Your task to perform on an android device: turn off wifi Image 0: 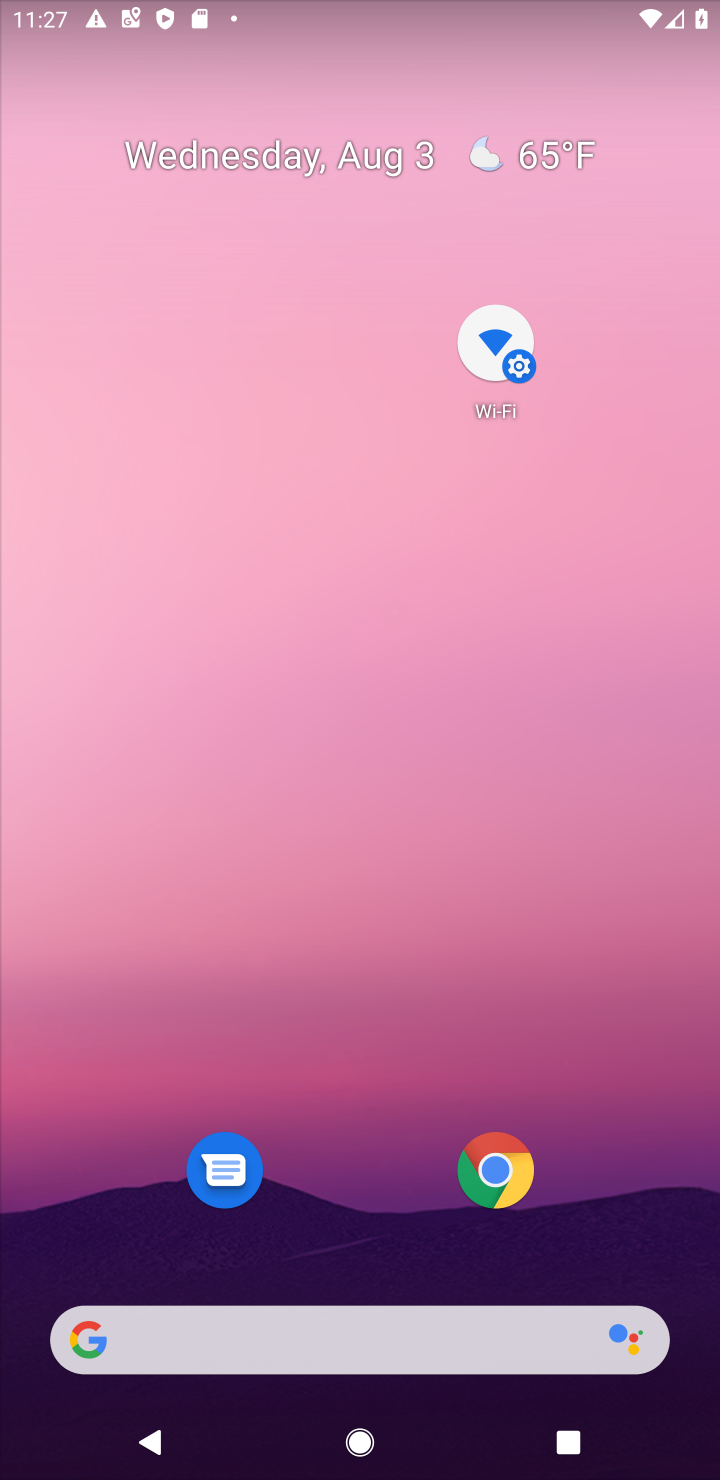
Step 0: drag from (395, 860) to (431, 478)
Your task to perform on an android device: turn off wifi Image 1: 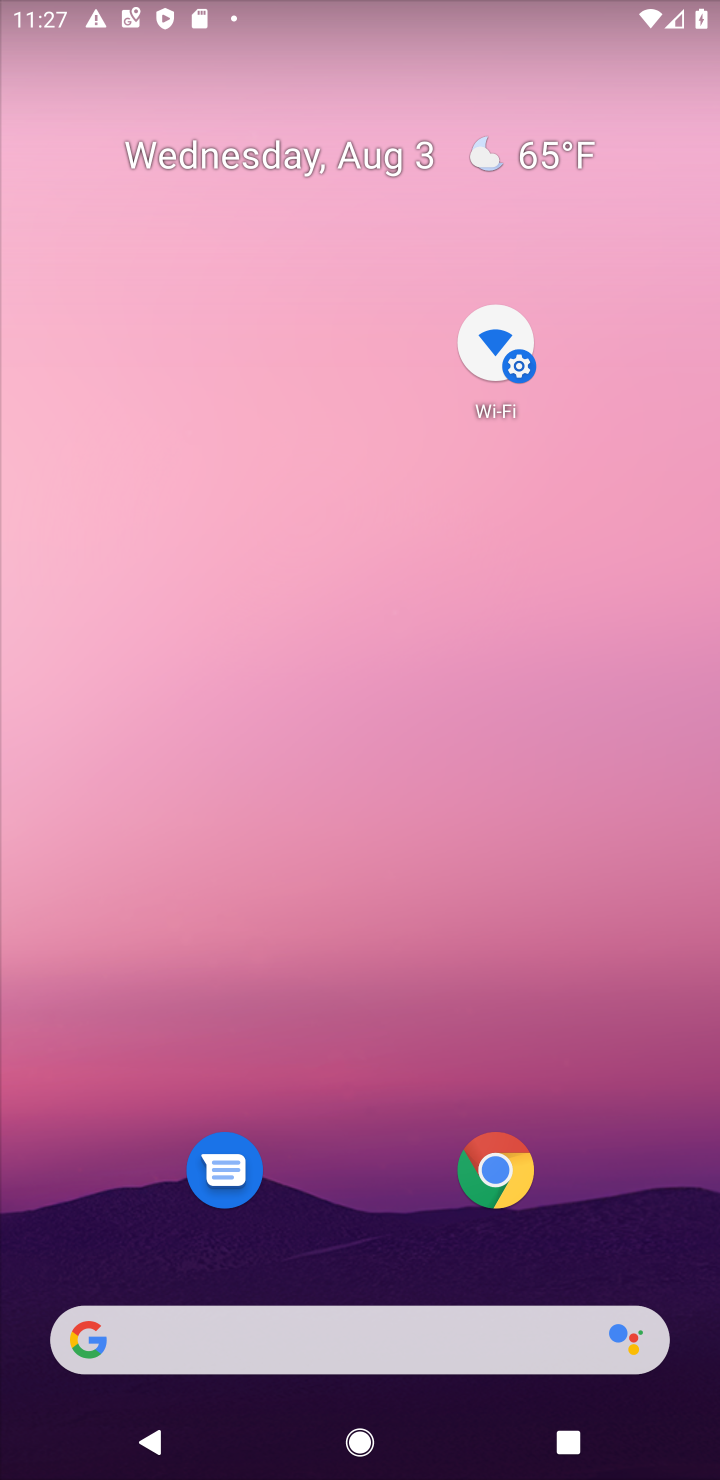
Step 1: drag from (358, 1179) to (416, 671)
Your task to perform on an android device: turn off wifi Image 2: 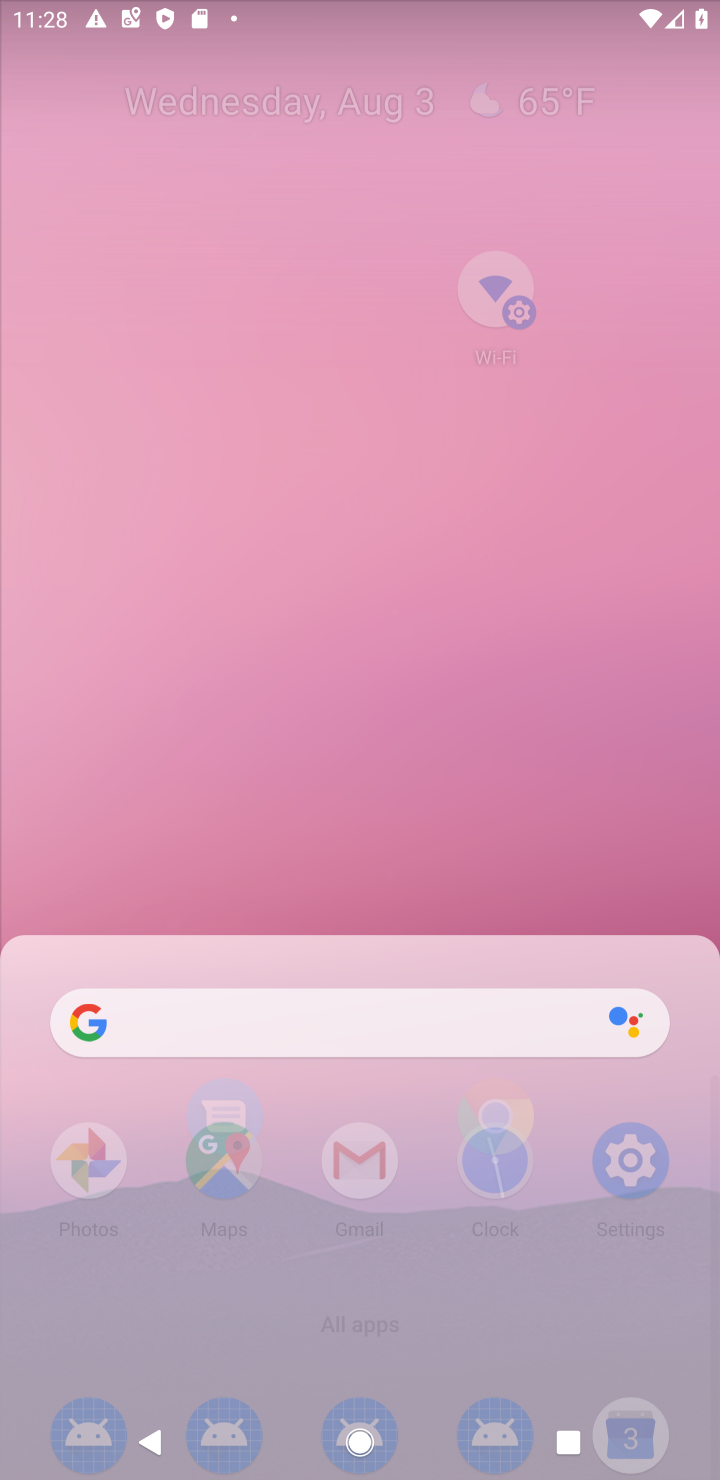
Step 2: drag from (365, 967) to (412, 553)
Your task to perform on an android device: turn off wifi Image 3: 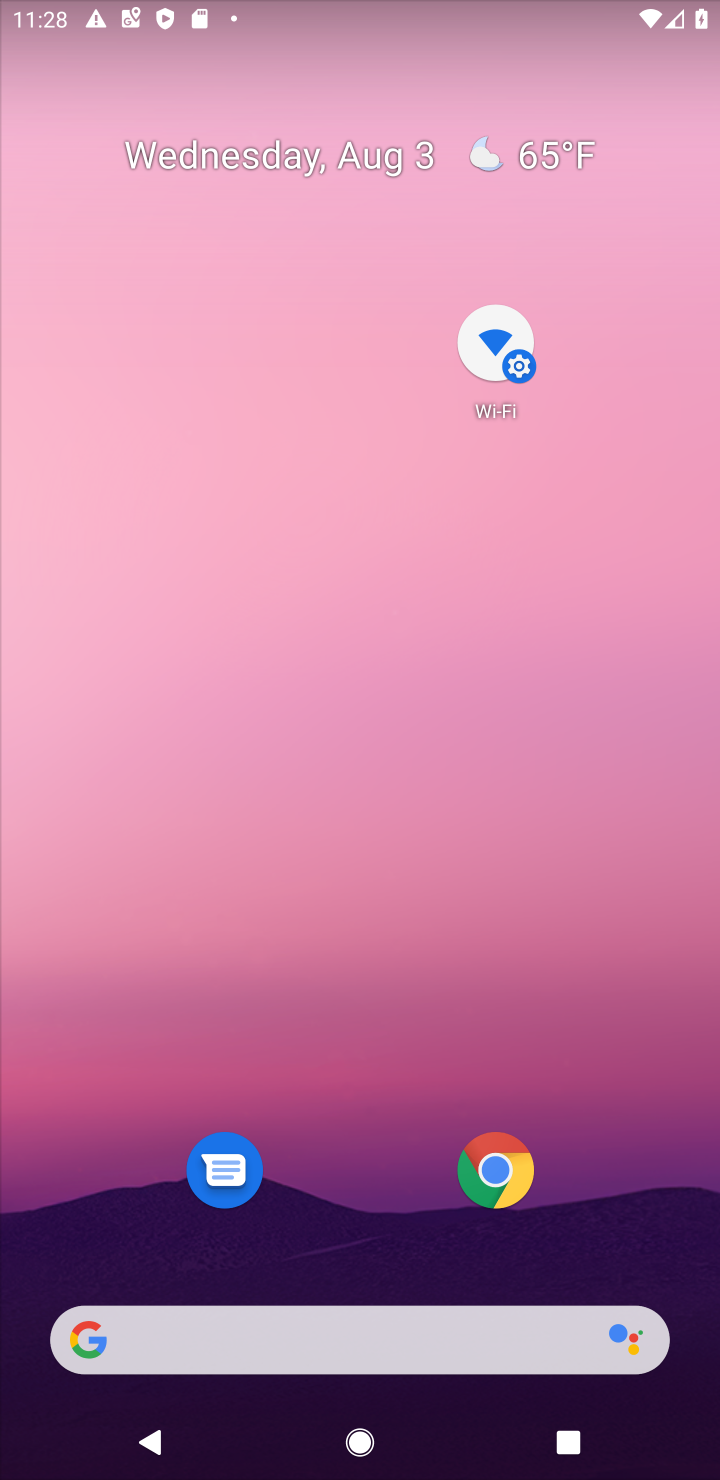
Step 3: drag from (375, 831) to (40, 6)
Your task to perform on an android device: turn off wifi Image 4: 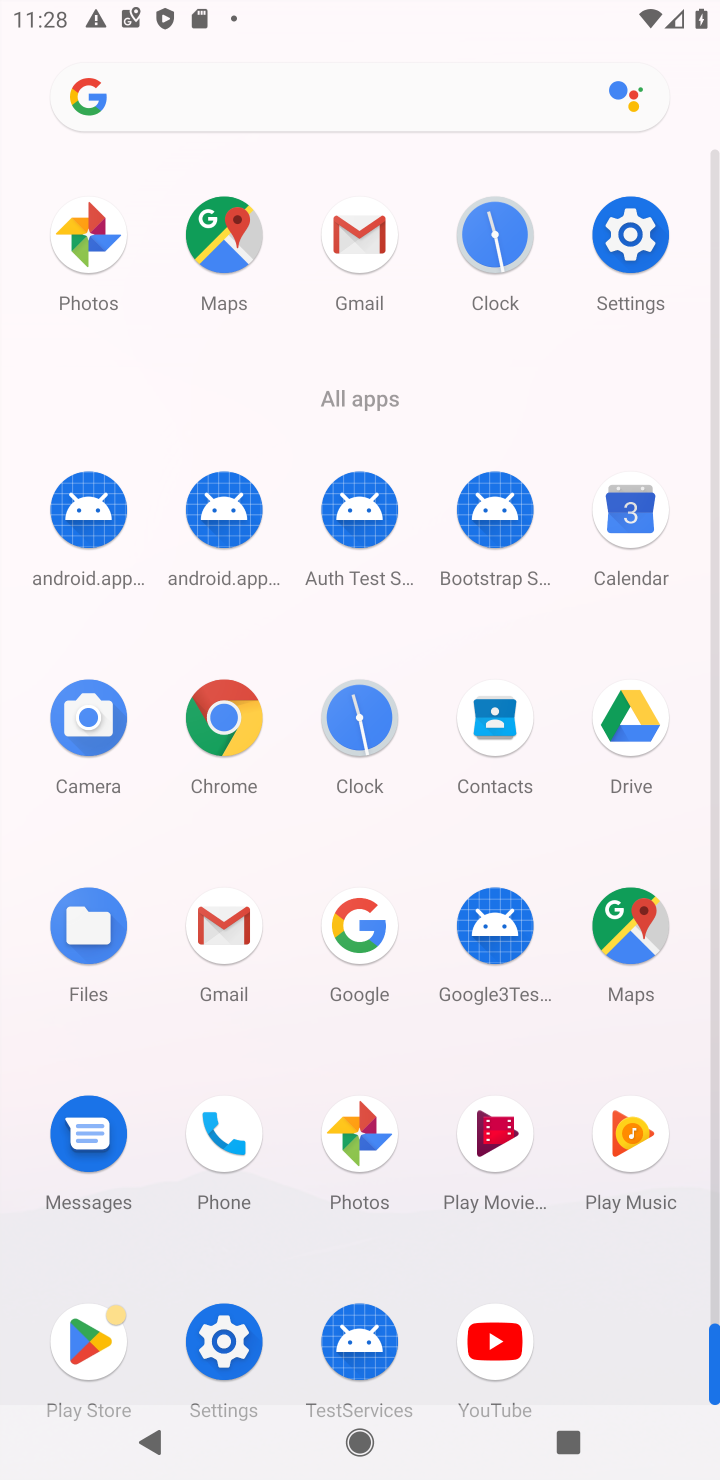
Step 4: click (616, 253)
Your task to perform on an android device: turn off wifi Image 5: 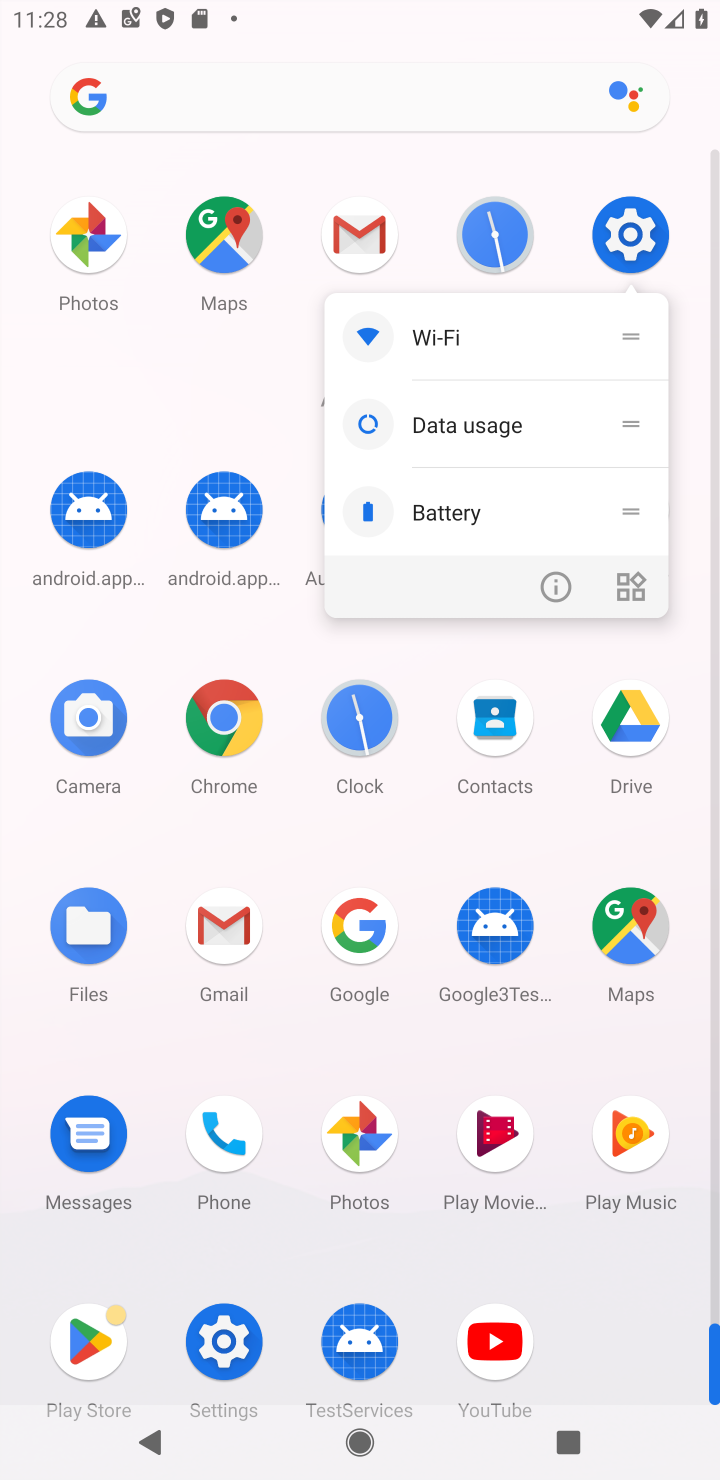
Step 5: click (543, 593)
Your task to perform on an android device: turn off wifi Image 6: 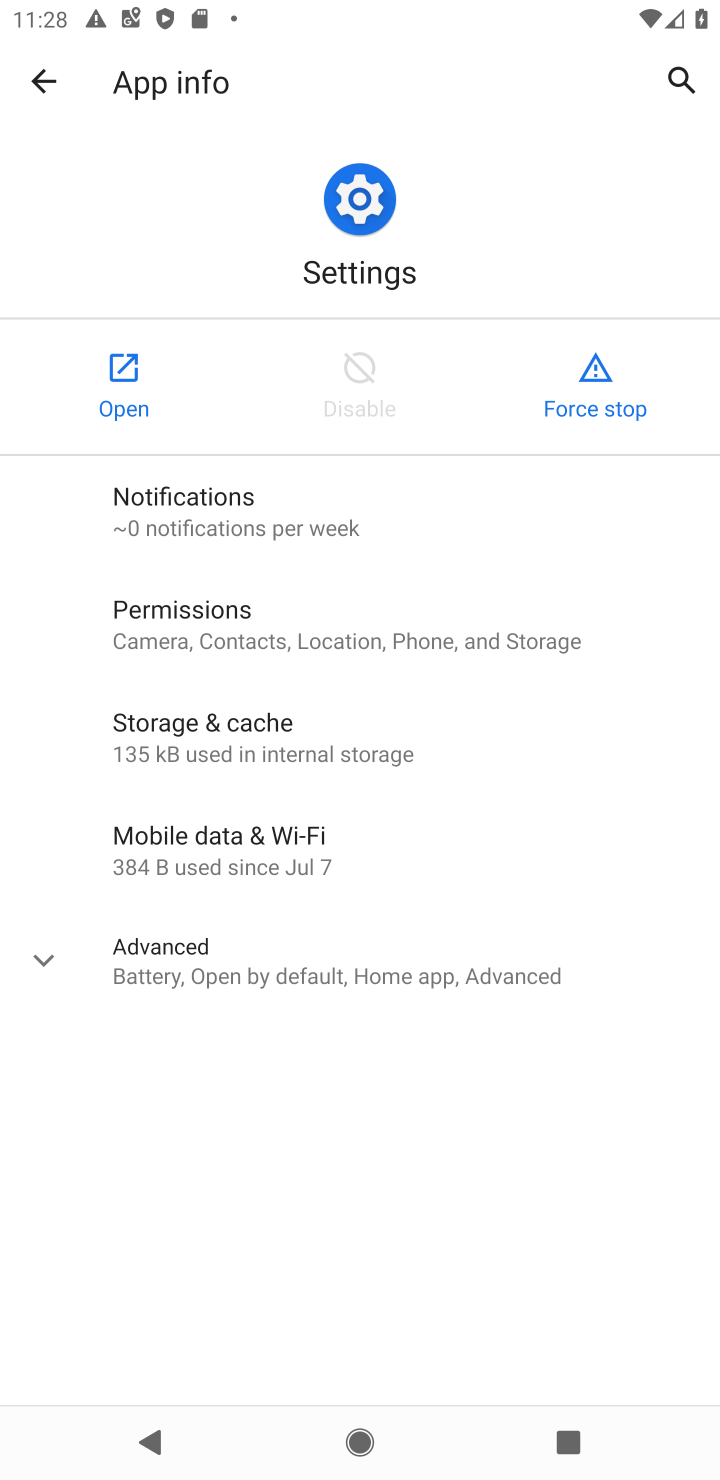
Step 6: click (143, 380)
Your task to perform on an android device: turn off wifi Image 7: 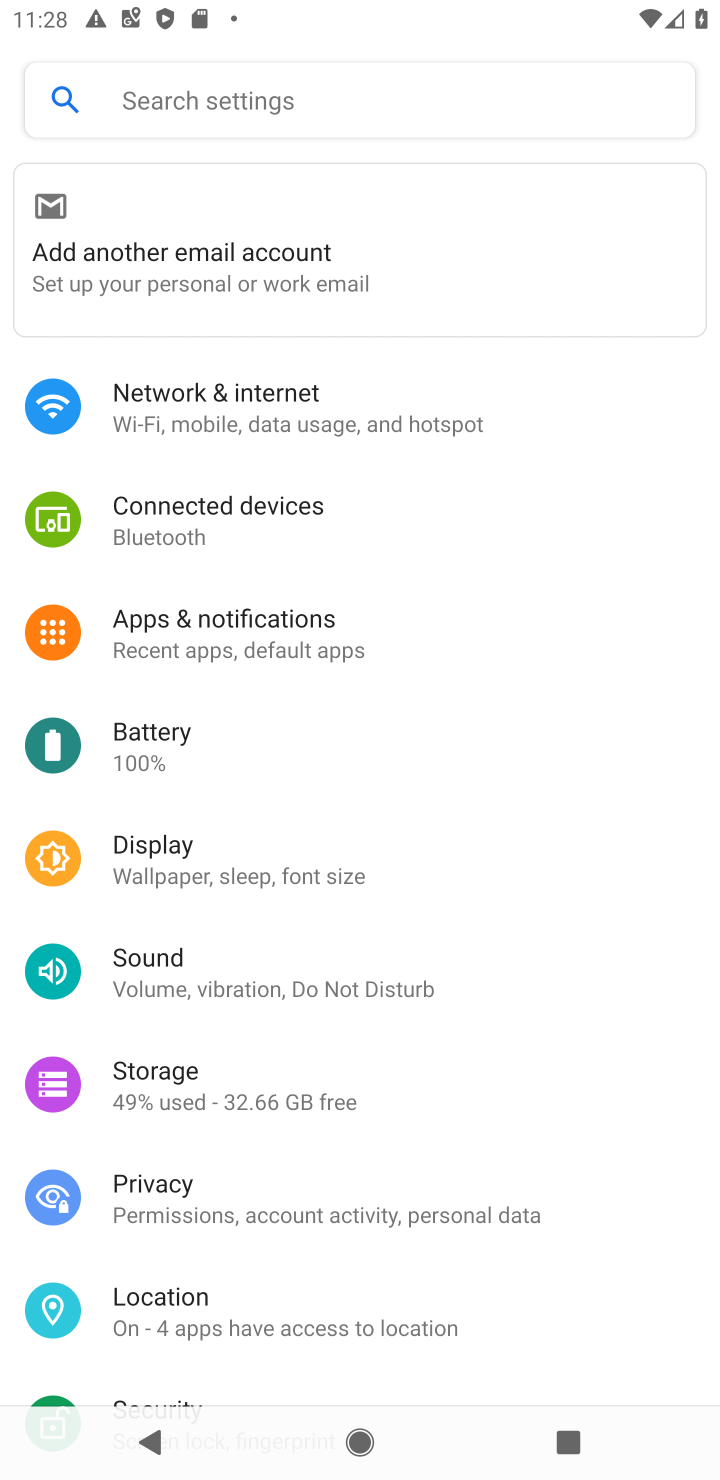
Step 7: click (233, 410)
Your task to perform on an android device: turn off wifi Image 8: 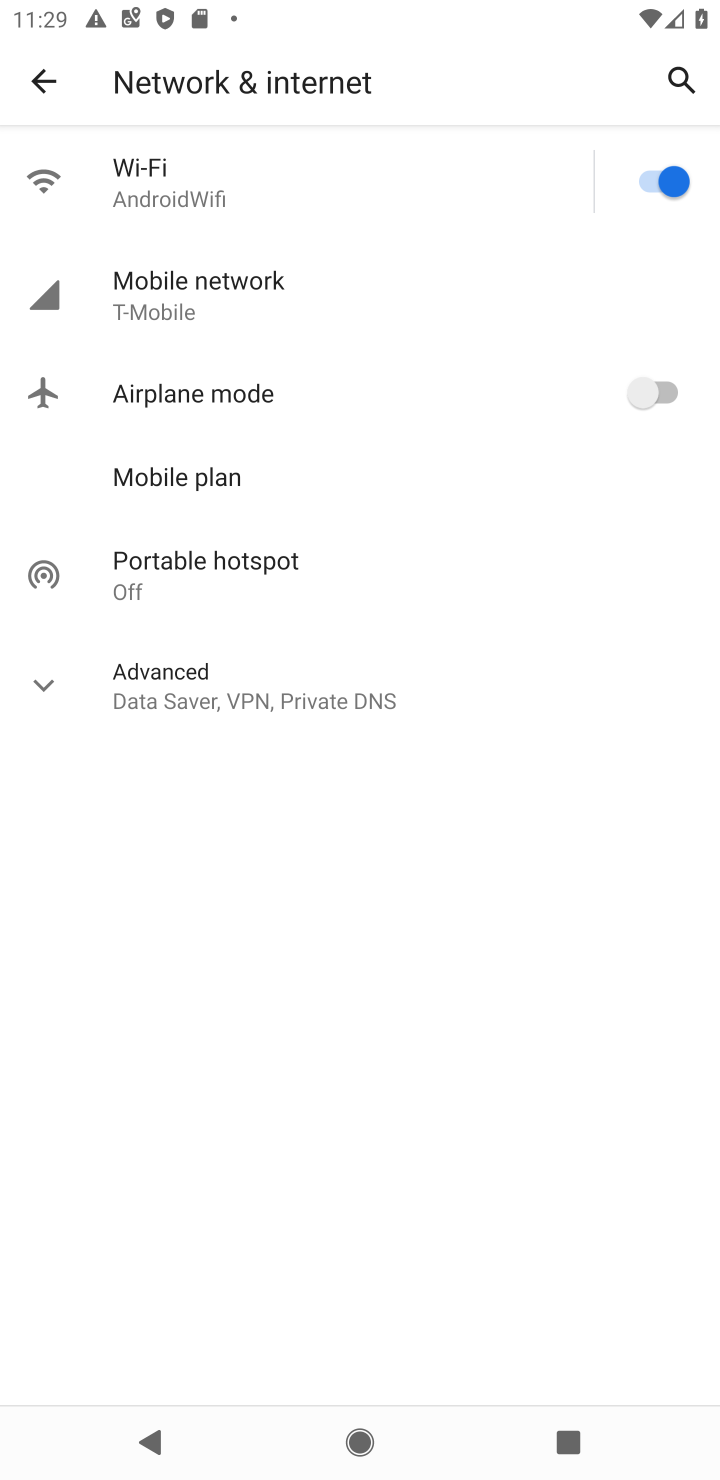
Step 8: click (228, 194)
Your task to perform on an android device: turn off wifi Image 9: 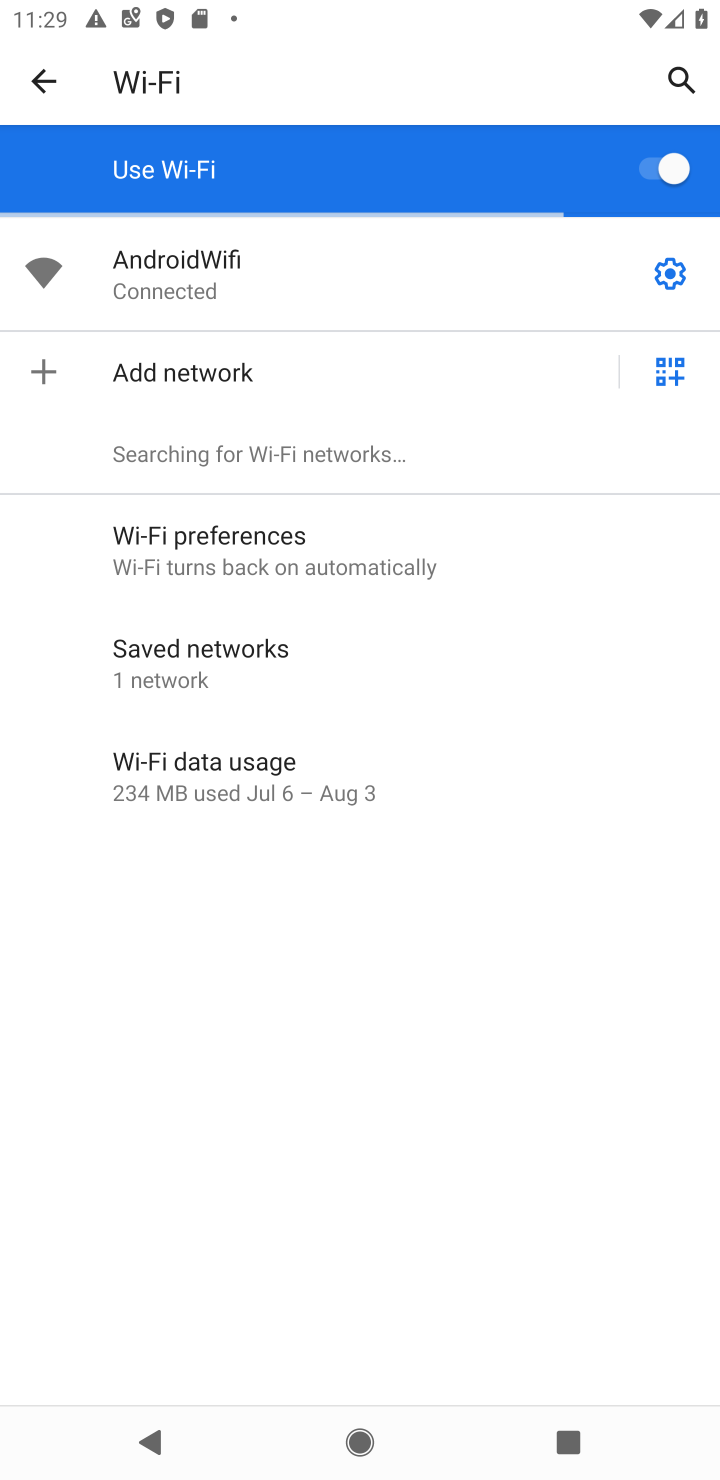
Step 9: click (691, 167)
Your task to perform on an android device: turn off wifi Image 10: 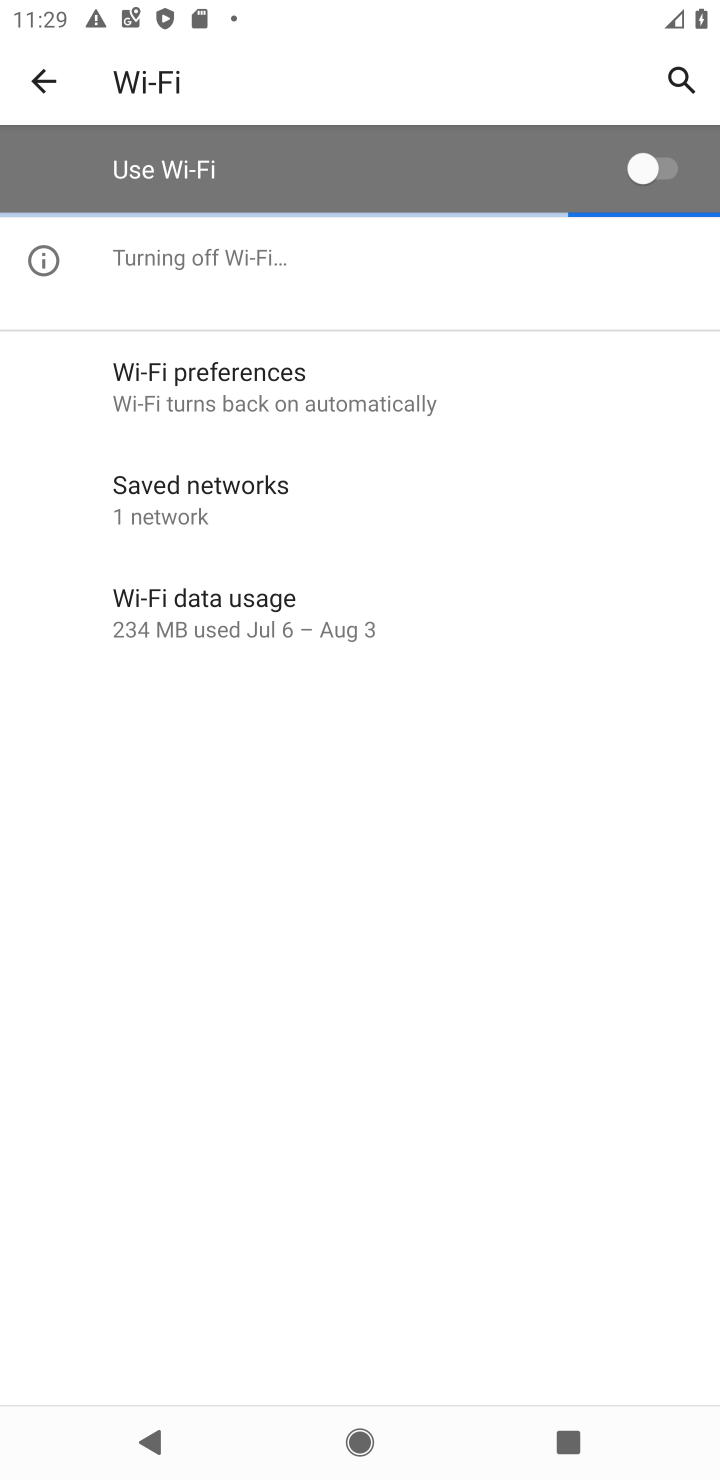
Step 10: task complete